Your task to perform on an android device: Search for Mexican restaurants on Maps Image 0: 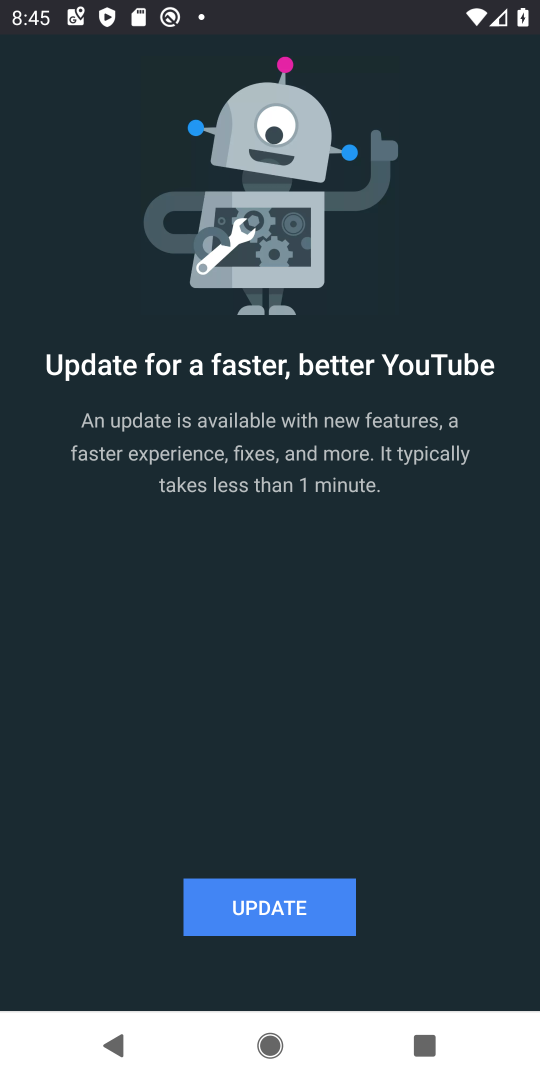
Step 0: press home button
Your task to perform on an android device: Search for Mexican restaurants on Maps Image 1: 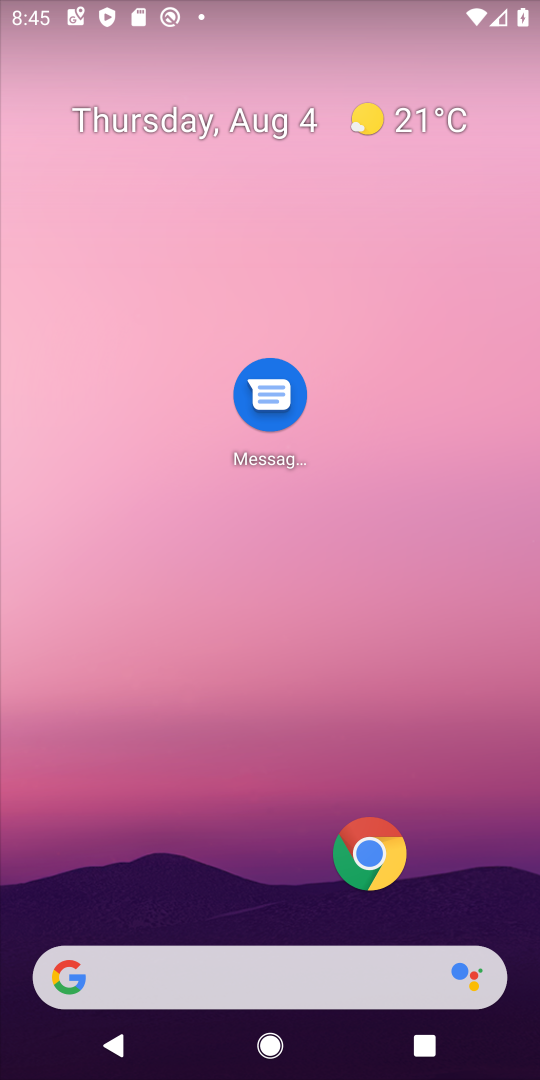
Step 1: drag from (199, 897) to (145, 374)
Your task to perform on an android device: Search for Mexican restaurants on Maps Image 2: 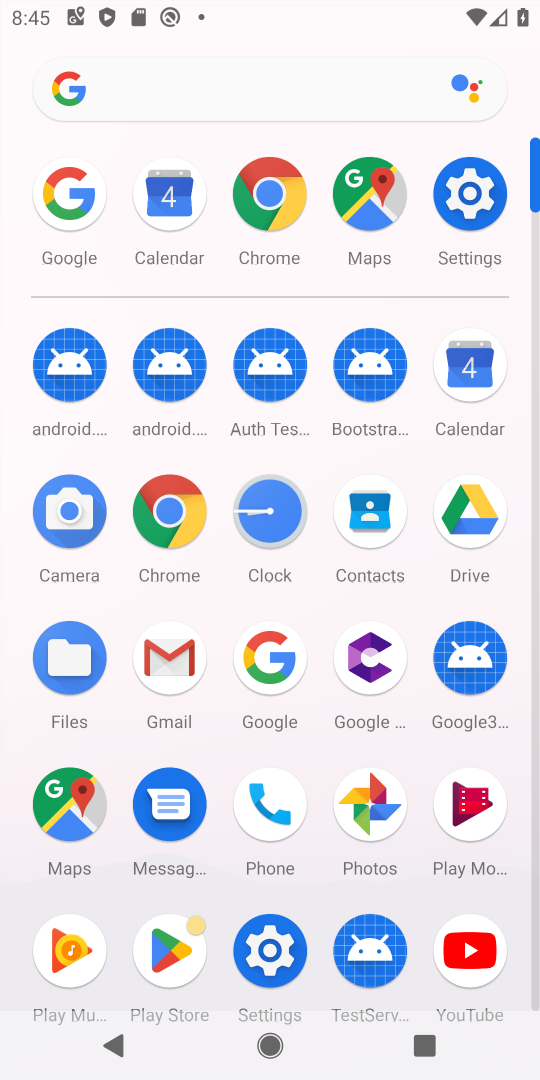
Step 2: click (57, 815)
Your task to perform on an android device: Search for Mexican restaurants on Maps Image 3: 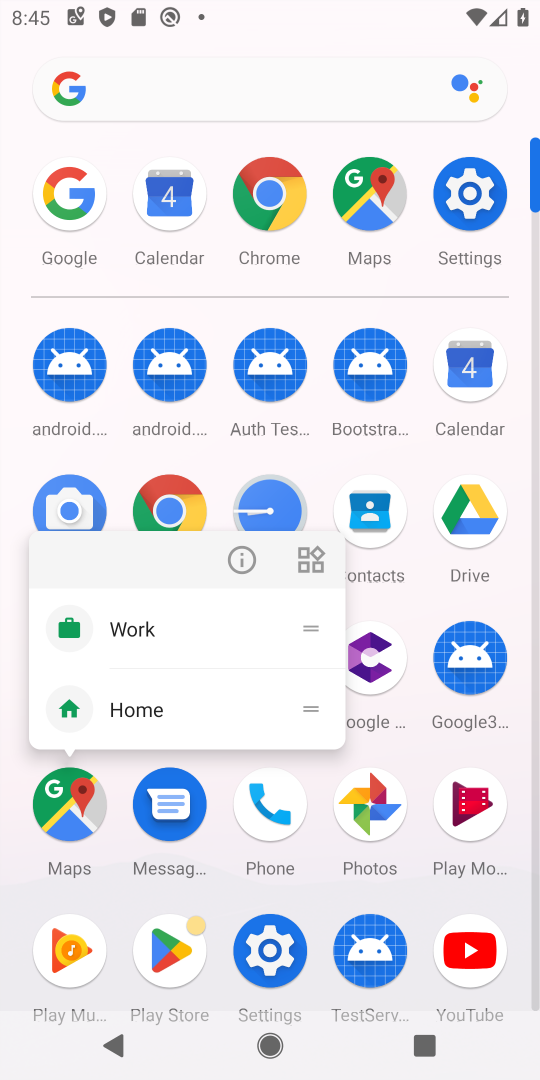
Step 3: click (64, 817)
Your task to perform on an android device: Search for Mexican restaurants on Maps Image 4: 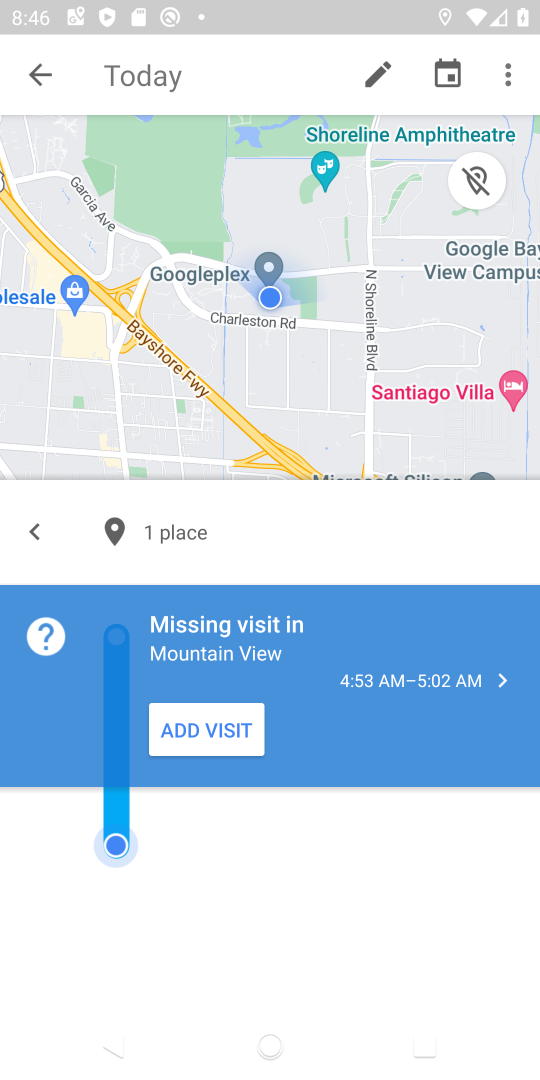
Step 4: click (150, 66)
Your task to perform on an android device: Search for Mexican restaurants on Maps Image 5: 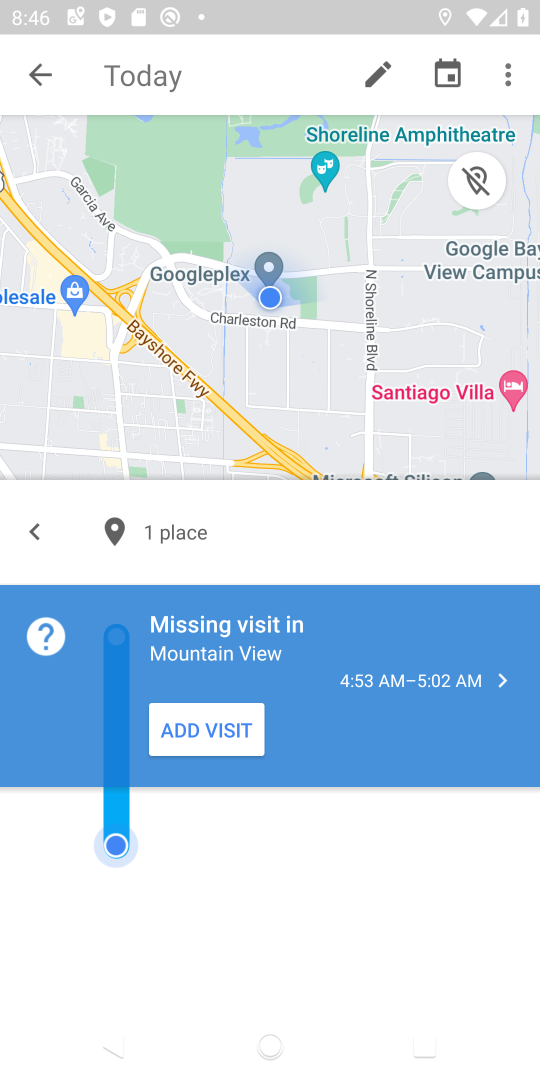
Step 5: click (30, 72)
Your task to perform on an android device: Search for Mexican restaurants on Maps Image 6: 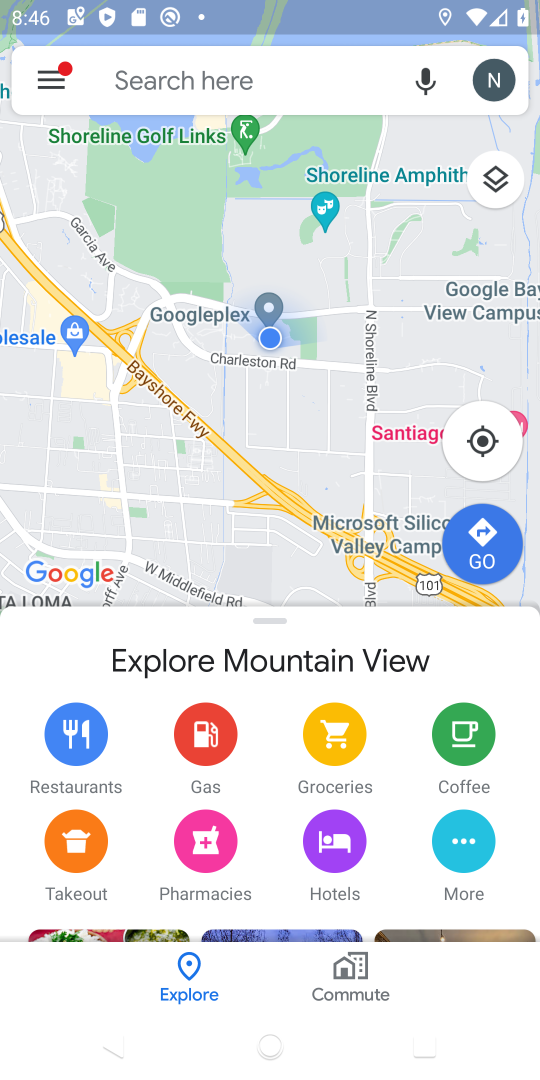
Step 6: click (214, 92)
Your task to perform on an android device: Search for Mexican restaurants on Maps Image 7: 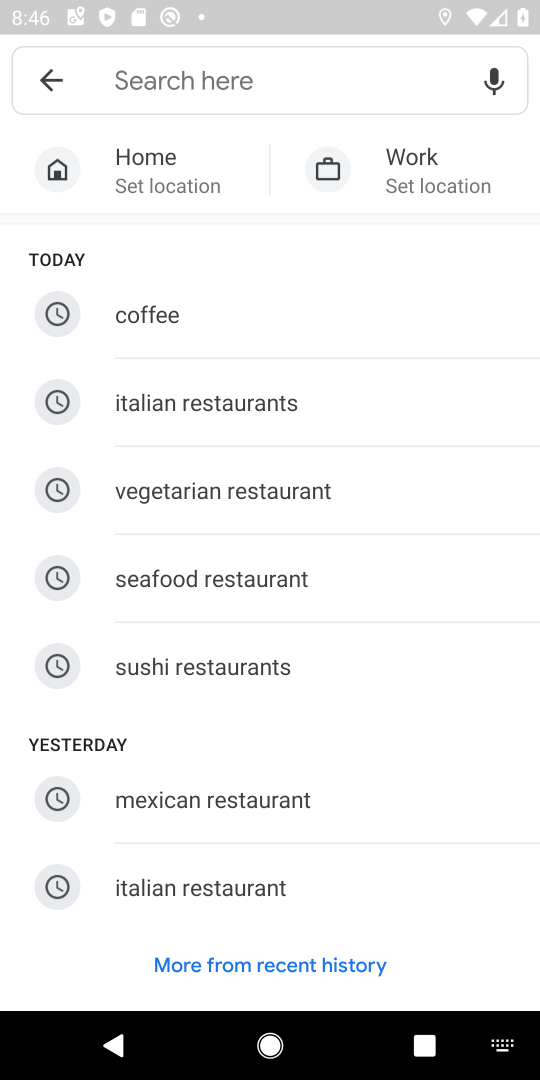
Step 7: click (151, 815)
Your task to perform on an android device: Search for Mexican restaurants on Maps Image 8: 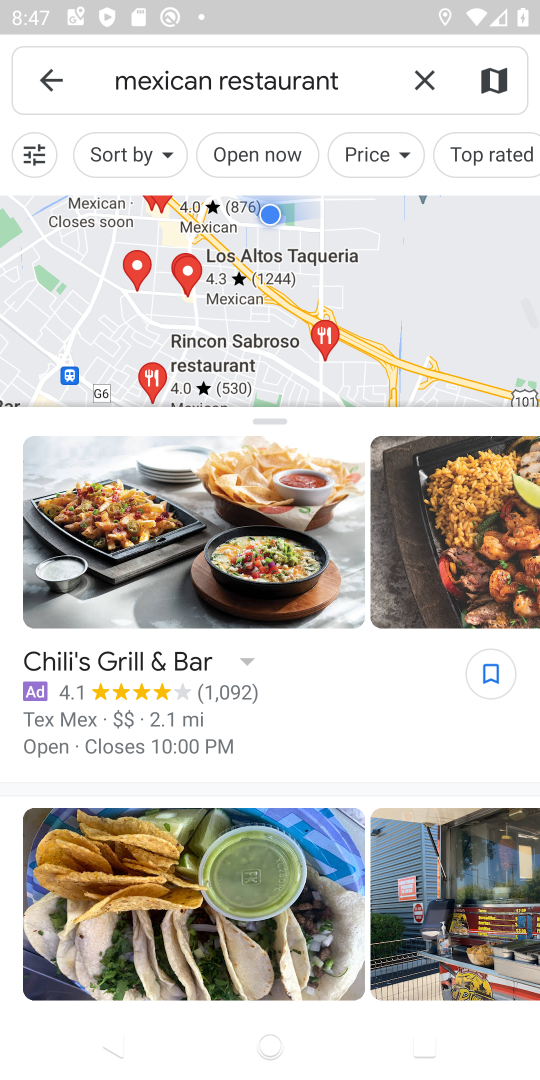
Step 8: task complete